Your task to perform on an android device: Open Google Image 0: 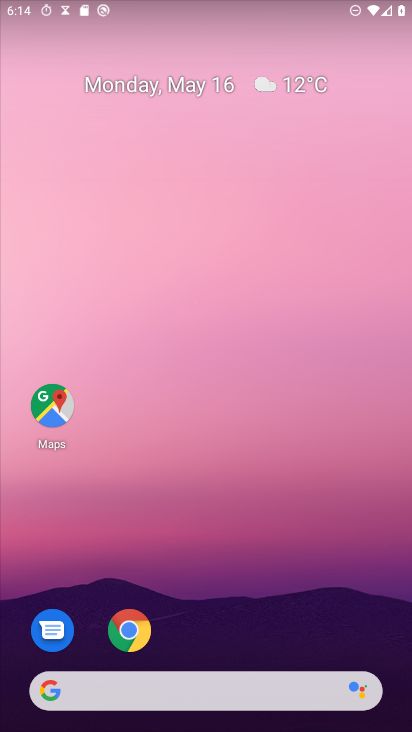
Step 0: drag from (199, 596) to (214, 53)
Your task to perform on an android device: Open Google Image 1: 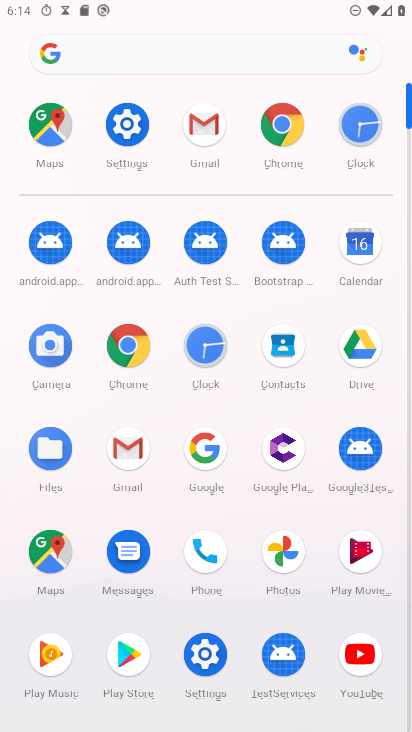
Step 1: click (209, 456)
Your task to perform on an android device: Open Google Image 2: 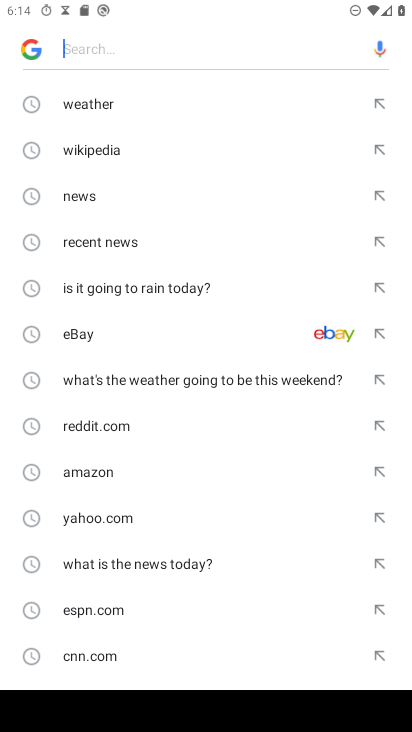
Step 2: task complete